Your task to perform on an android device: Is it going to rain this weekend? Image 0: 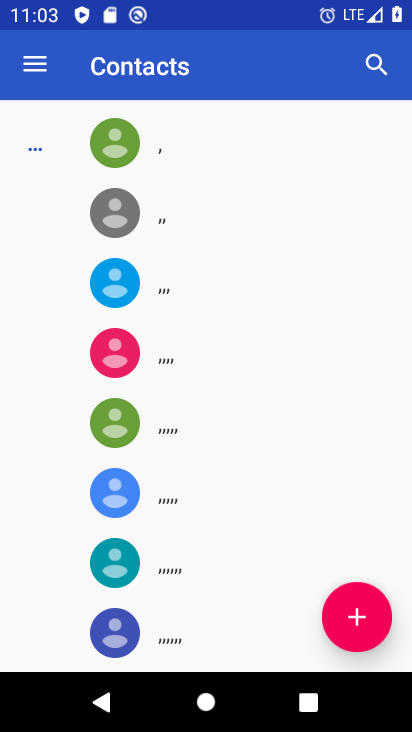
Step 0: press home button
Your task to perform on an android device: Is it going to rain this weekend? Image 1: 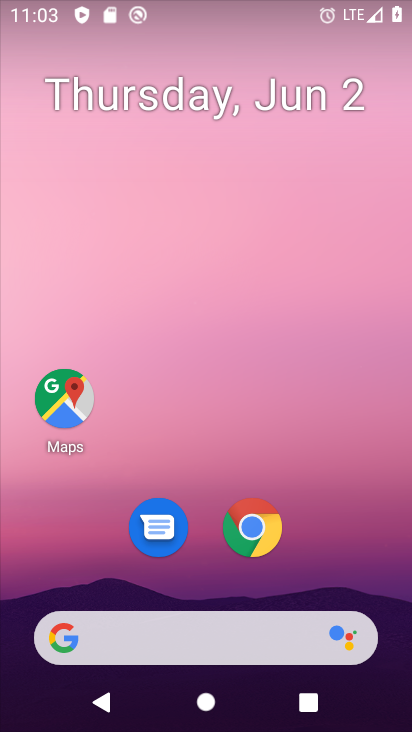
Step 1: drag from (18, 272) to (342, 221)
Your task to perform on an android device: Is it going to rain this weekend? Image 2: 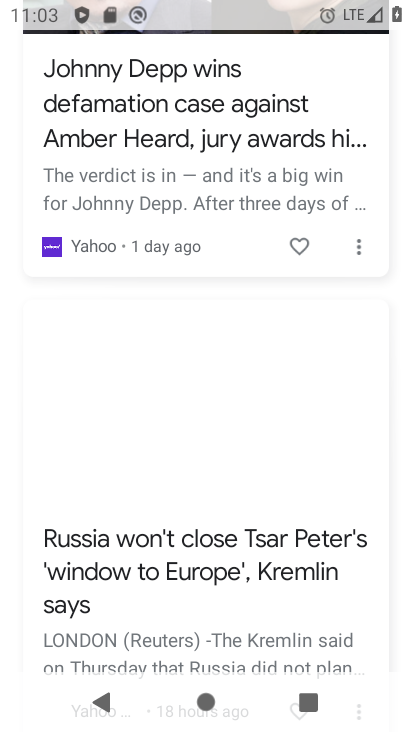
Step 2: drag from (181, 148) to (207, 611)
Your task to perform on an android device: Is it going to rain this weekend? Image 3: 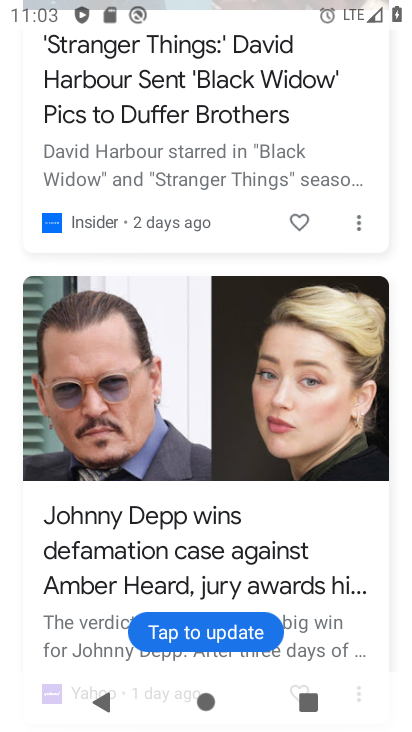
Step 3: drag from (217, 233) to (172, 726)
Your task to perform on an android device: Is it going to rain this weekend? Image 4: 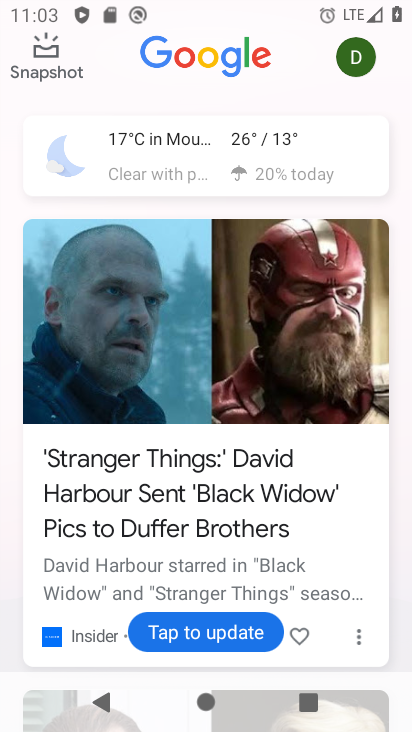
Step 4: drag from (149, 242) to (124, 614)
Your task to perform on an android device: Is it going to rain this weekend? Image 5: 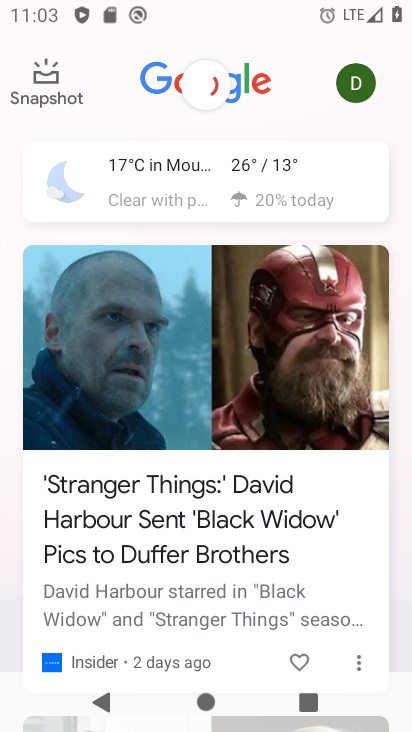
Step 5: click (55, 187)
Your task to perform on an android device: Is it going to rain this weekend? Image 6: 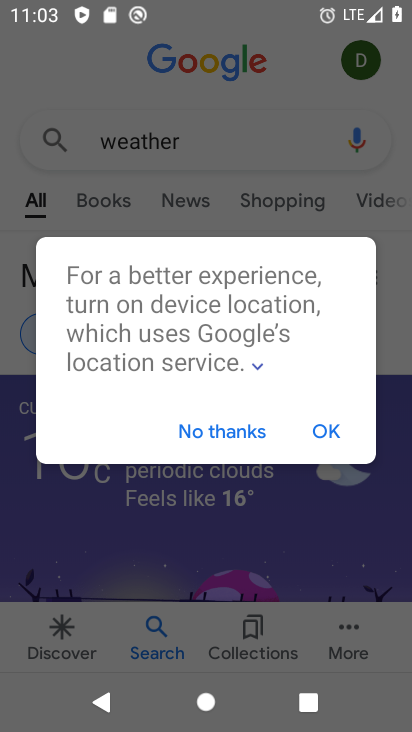
Step 6: click (274, 440)
Your task to perform on an android device: Is it going to rain this weekend? Image 7: 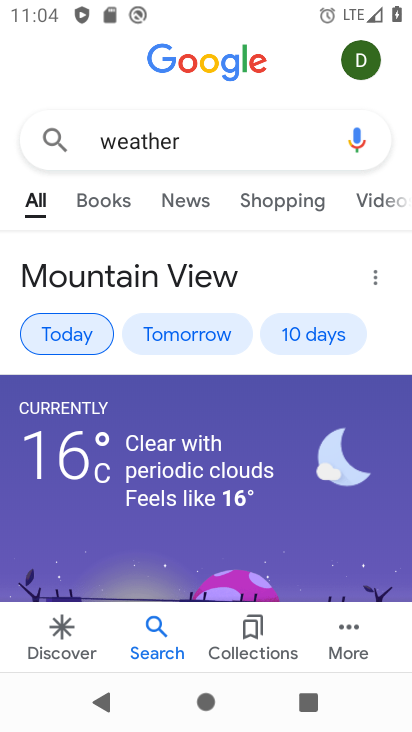
Step 7: click (260, 336)
Your task to perform on an android device: Is it going to rain this weekend? Image 8: 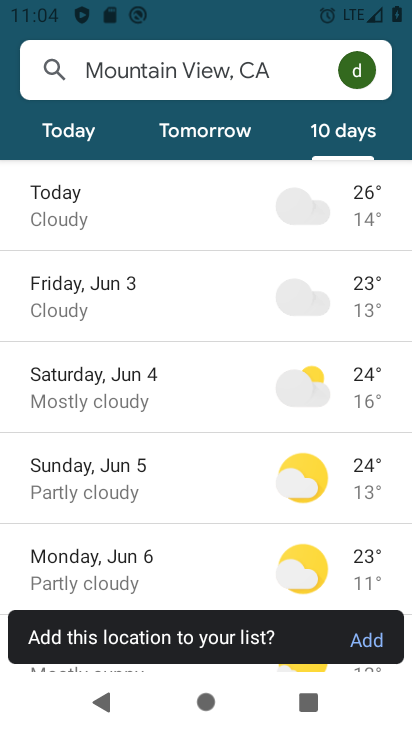
Step 8: task complete